Your task to perform on an android device: open app "Spotify" Image 0: 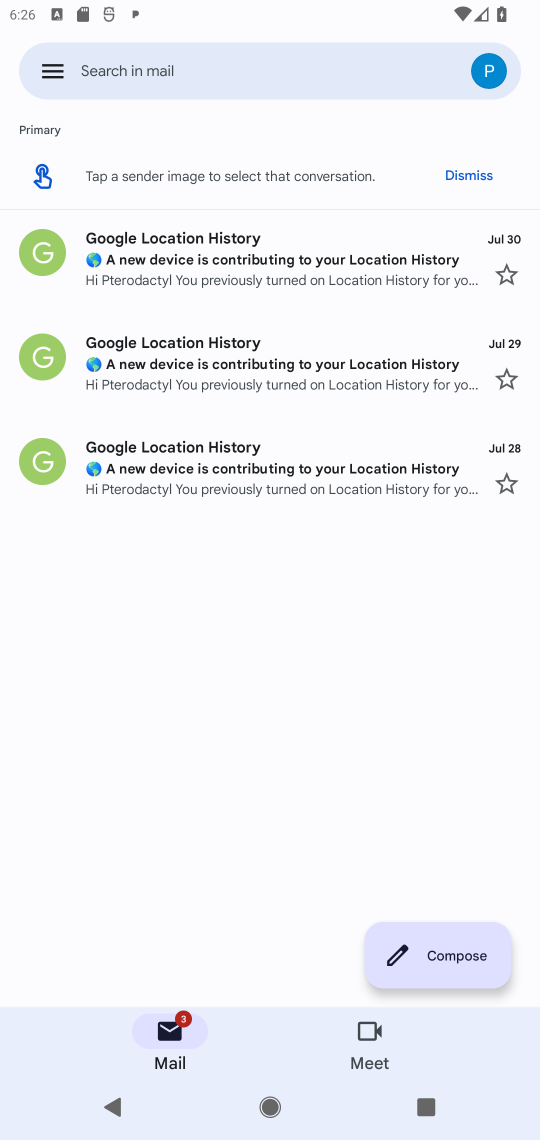
Step 0: press home button
Your task to perform on an android device: open app "Spotify" Image 1: 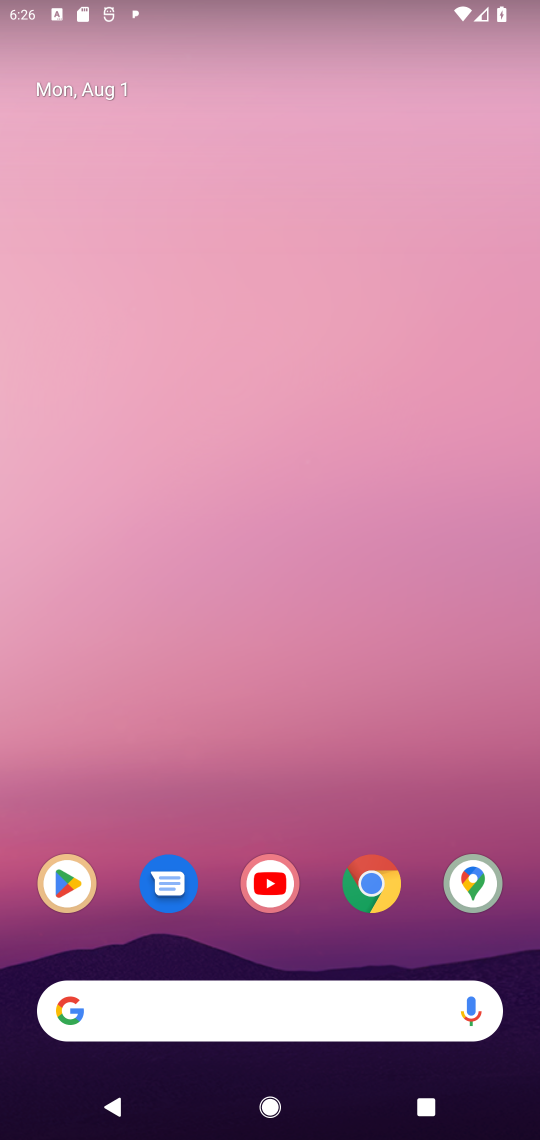
Step 1: click (60, 887)
Your task to perform on an android device: open app "Spotify" Image 2: 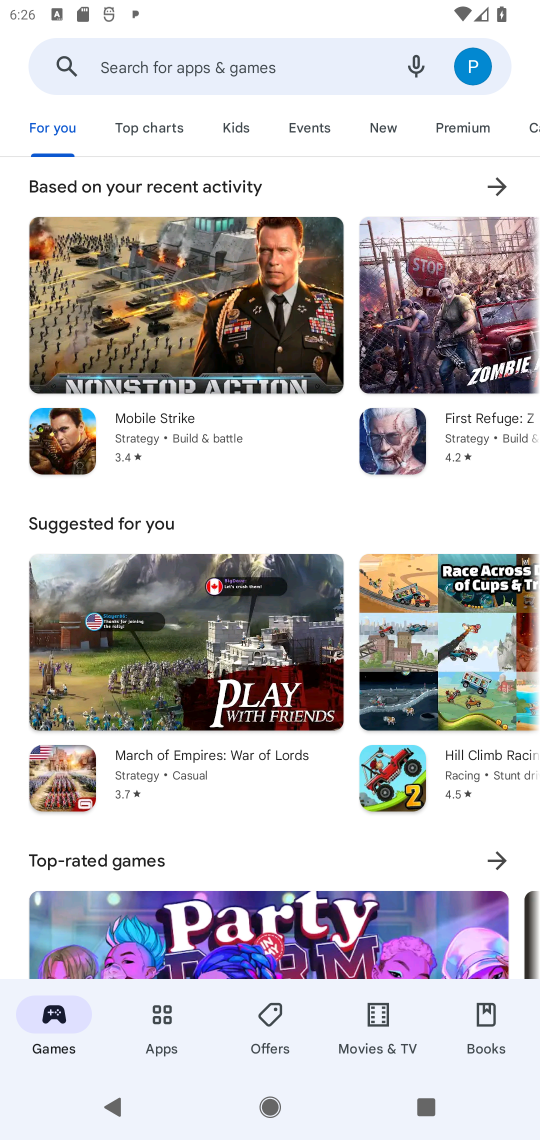
Step 2: click (174, 60)
Your task to perform on an android device: open app "Spotify" Image 3: 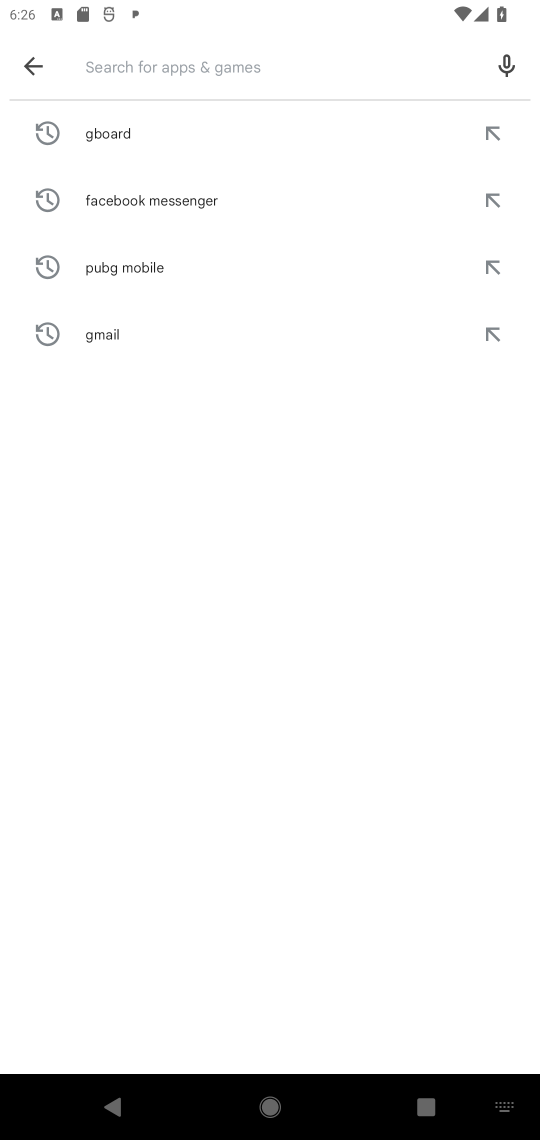
Step 3: type "Spotify"
Your task to perform on an android device: open app "Spotify" Image 4: 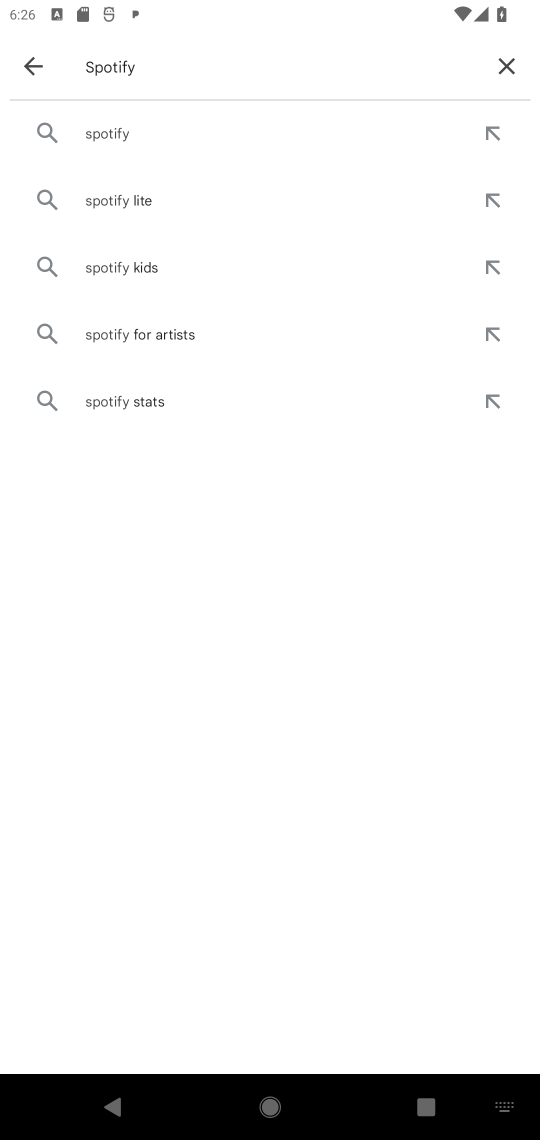
Step 4: click (109, 141)
Your task to perform on an android device: open app "Spotify" Image 5: 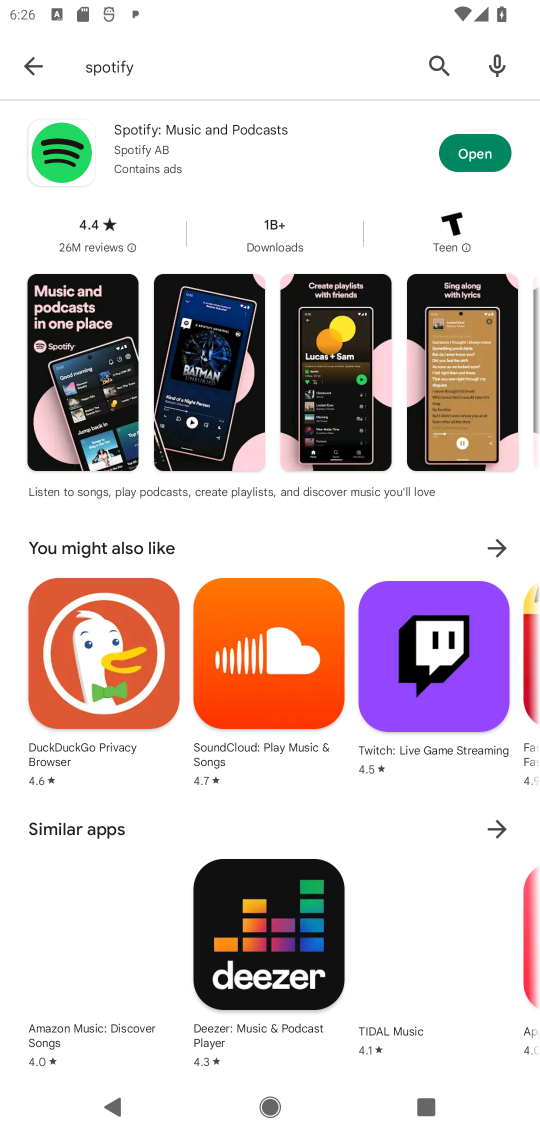
Step 5: click (485, 146)
Your task to perform on an android device: open app "Spotify" Image 6: 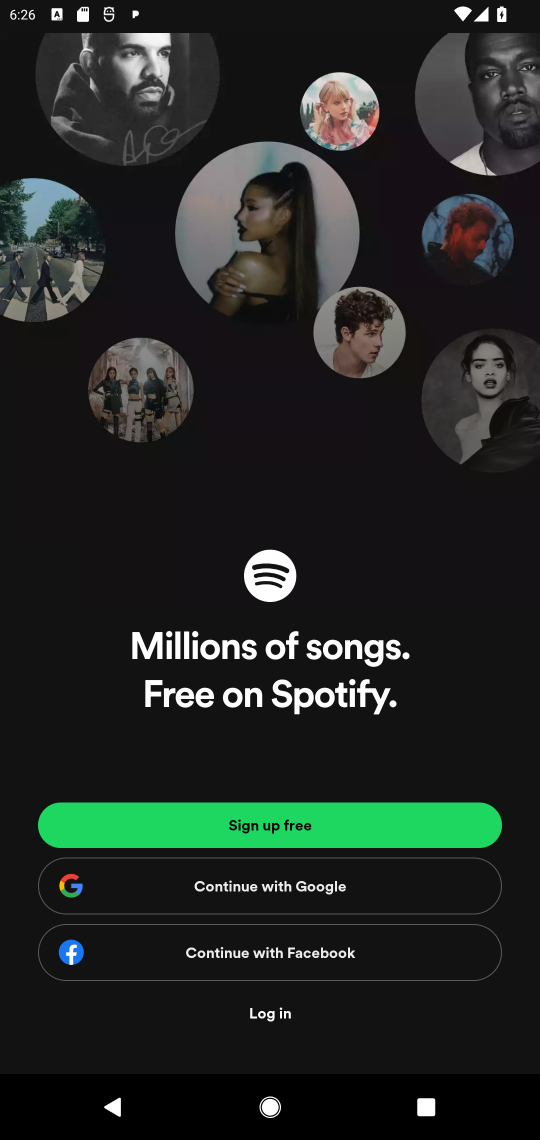
Step 6: task complete